Your task to perform on an android device: set the timer Image 0: 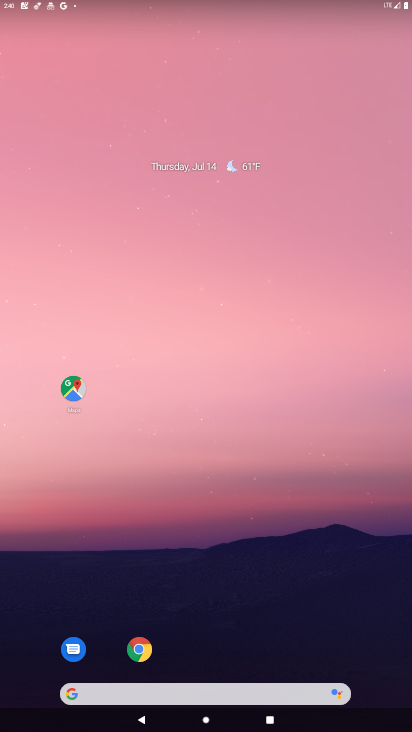
Step 0: drag from (297, 692) to (244, 30)
Your task to perform on an android device: set the timer Image 1: 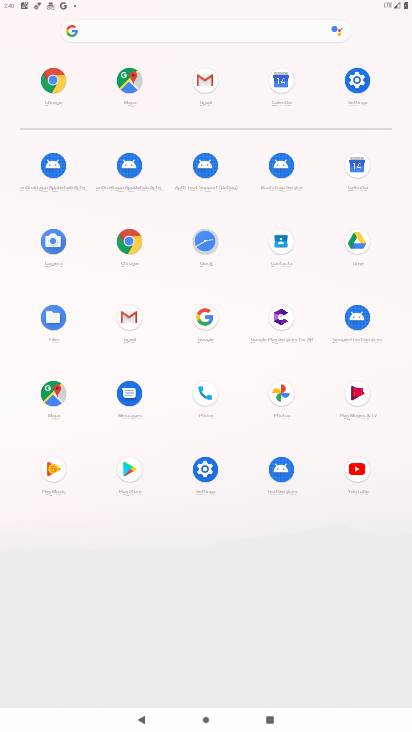
Step 1: click (196, 246)
Your task to perform on an android device: set the timer Image 2: 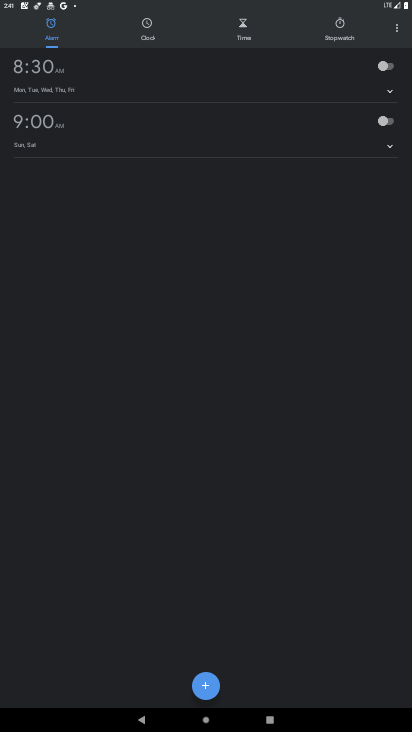
Step 2: click (255, 21)
Your task to perform on an android device: set the timer Image 3: 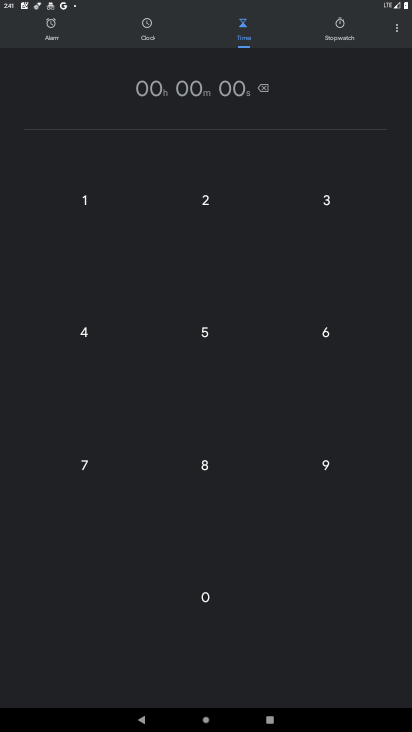
Step 3: click (204, 464)
Your task to perform on an android device: set the timer Image 4: 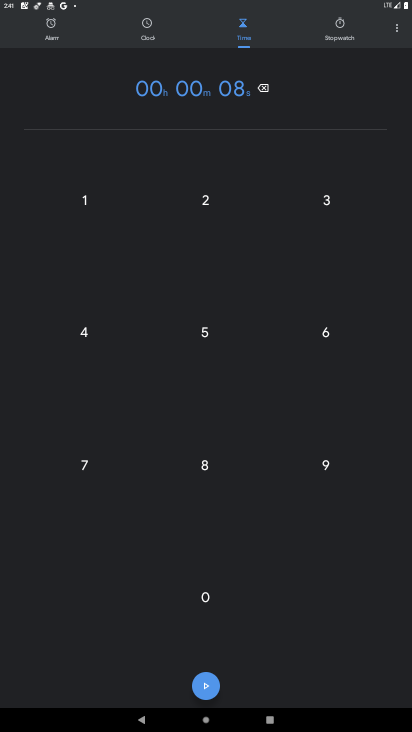
Step 4: click (212, 330)
Your task to perform on an android device: set the timer Image 5: 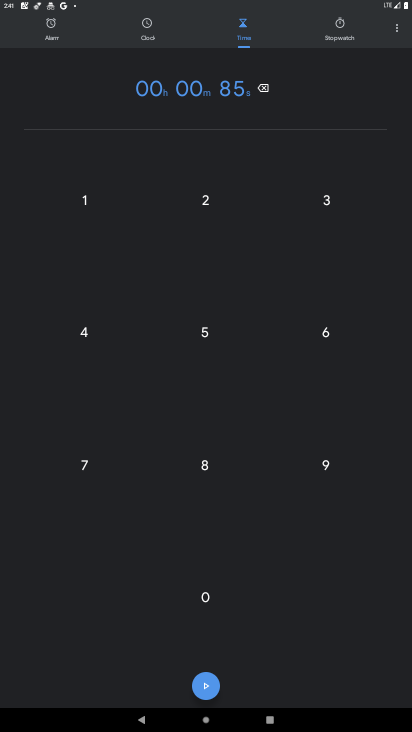
Step 5: click (210, 205)
Your task to perform on an android device: set the timer Image 6: 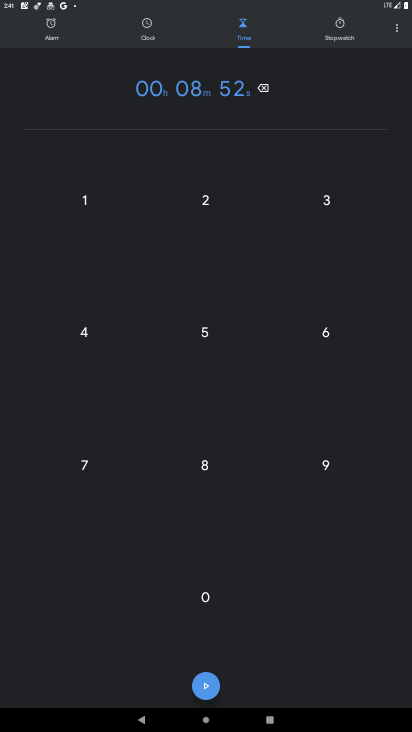
Step 6: click (319, 202)
Your task to perform on an android device: set the timer Image 7: 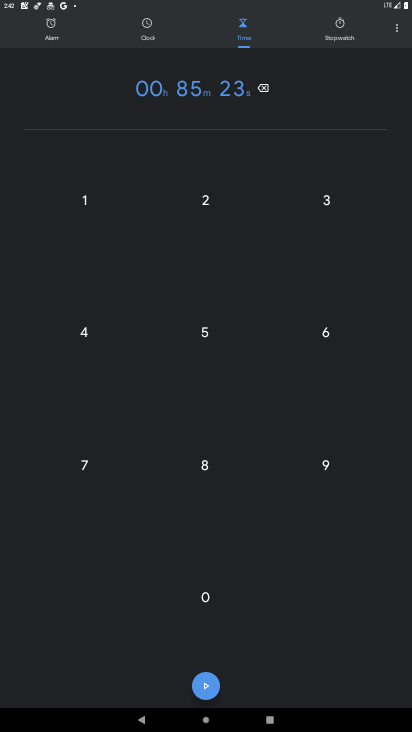
Step 7: click (90, 334)
Your task to perform on an android device: set the timer Image 8: 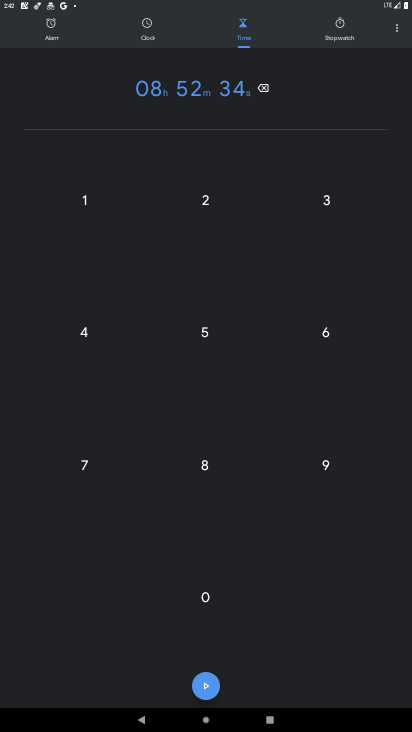
Step 8: click (194, 340)
Your task to perform on an android device: set the timer Image 9: 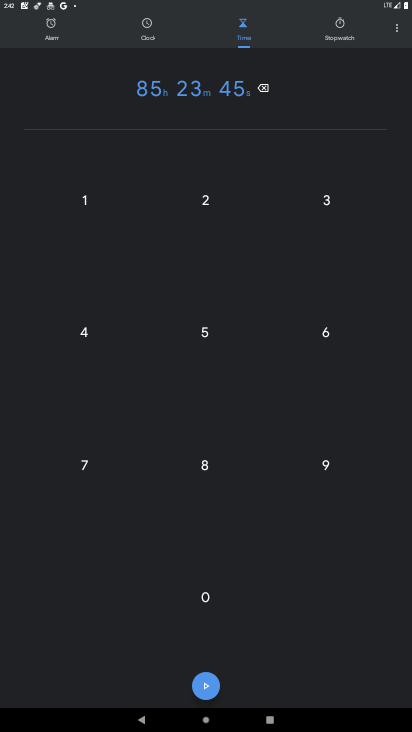
Step 9: click (204, 690)
Your task to perform on an android device: set the timer Image 10: 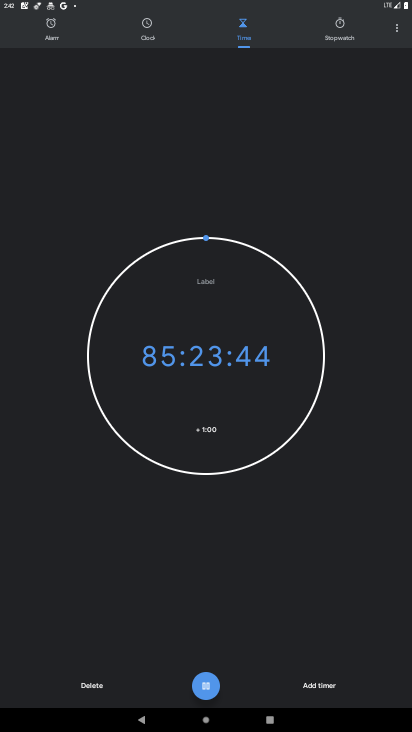
Step 10: task complete